Your task to perform on an android device: empty trash in google photos Image 0: 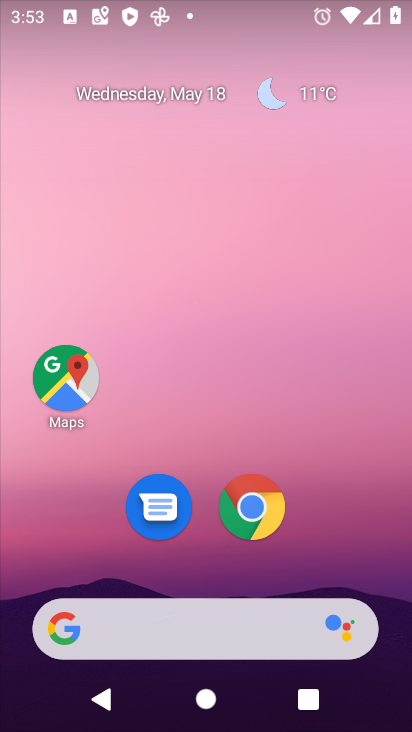
Step 0: drag from (386, 606) to (360, 283)
Your task to perform on an android device: empty trash in google photos Image 1: 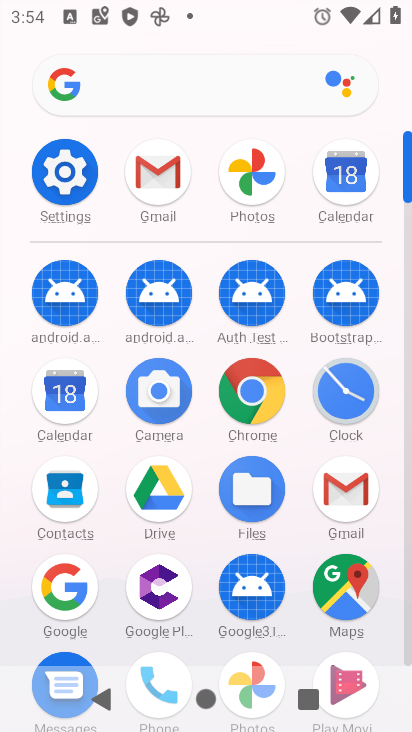
Step 1: click (407, 648)
Your task to perform on an android device: empty trash in google photos Image 2: 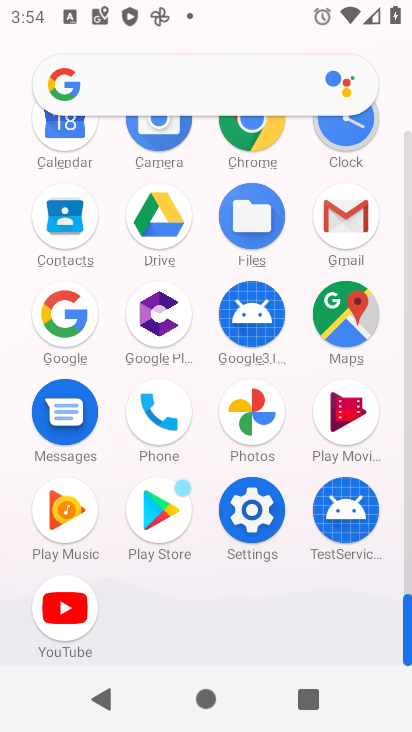
Step 2: click (252, 413)
Your task to perform on an android device: empty trash in google photos Image 3: 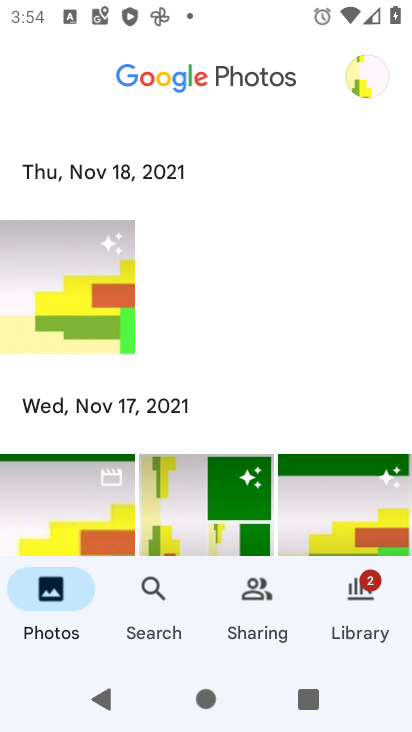
Step 3: click (361, 592)
Your task to perform on an android device: empty trash in google photos Image 4: 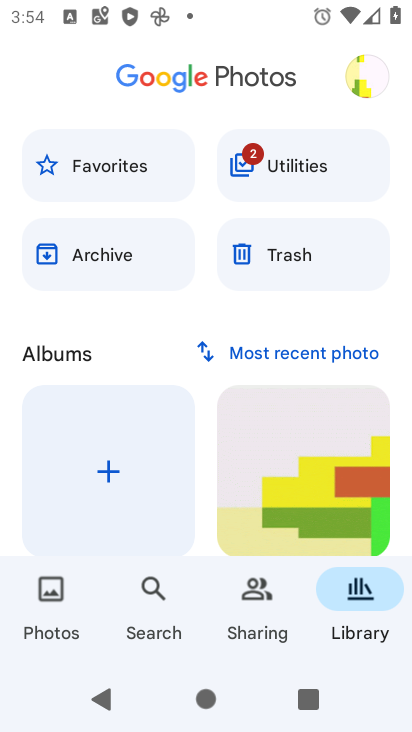
Step 4: click (267, 251)
Your task to perform on an android device: empty trash in google photos Image 5: 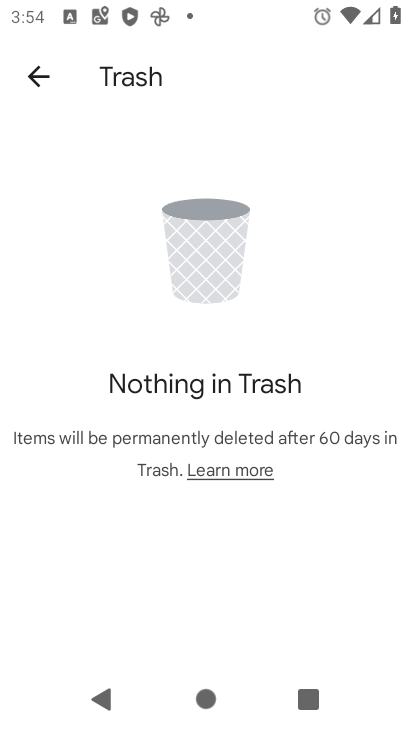
Step 5: task complete